Your task to perform on an android device: Add razer blade to the cart on amazon Image 0: 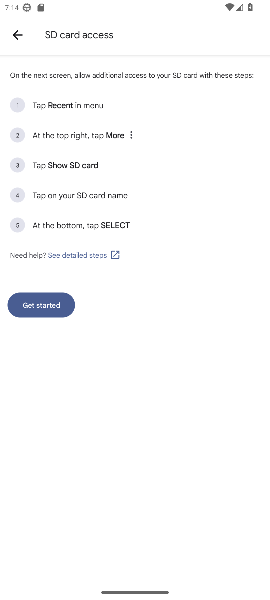
Step 0: press home button
Your task to perform on an android device: Add razer blade to the cart on amazon Image 1: 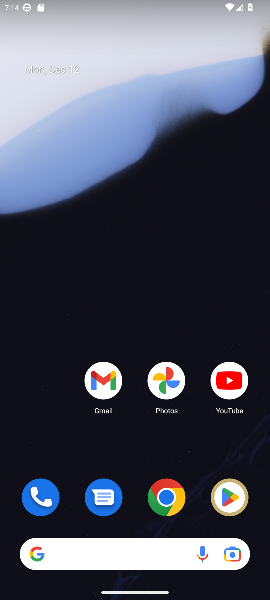
Step 1: drag from (65, 442) to (71, 50)
Your task to perform on an android device: Add razer blade to the cart on amazon Image 2: 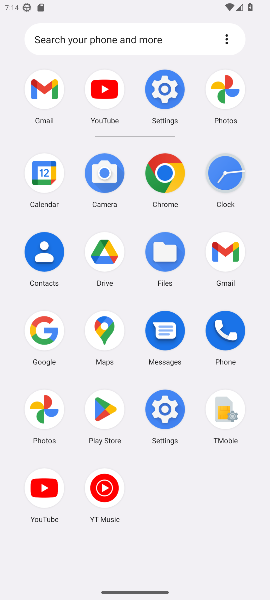
Step 2: click (36, 327)
Your task to perform on an android device: Add razer blade to the cart on amazon Image 3: 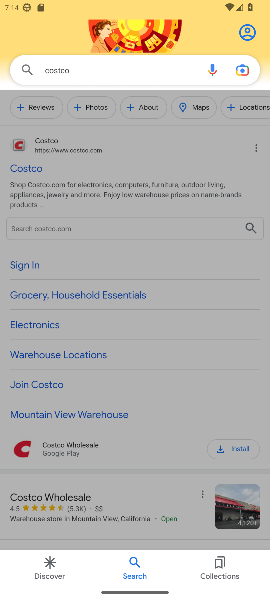
Step 3: click (85, 68)
Your task to perform on an android device: Add razer blade to the cart on amazon Image 4: 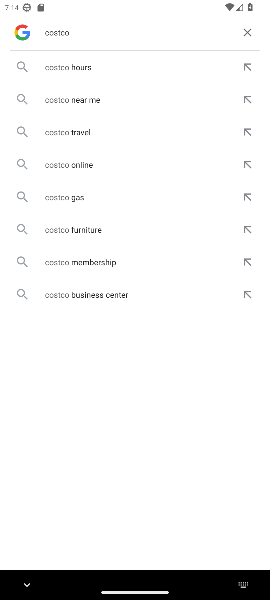
Step 4: click (244, 27)
Your task to perform on an android device: Add razer blade to the cart on amazon Image 5: 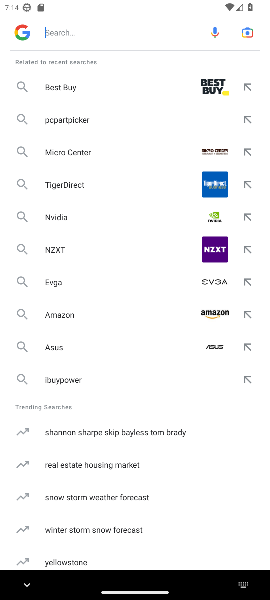
Step 5: type "amazon"
Your task to perform on an android device: Add razer blade to the cart on amazon Image 6: 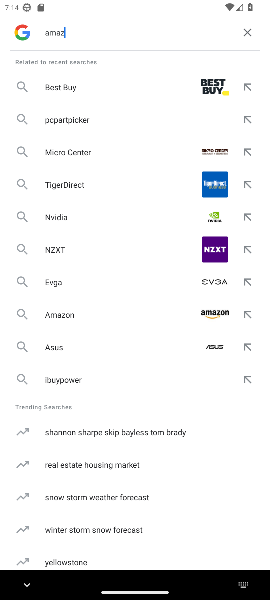
Step 6: press enter
Your task to perform on an android device: Add razer blade to the cart on amazon Image 7: 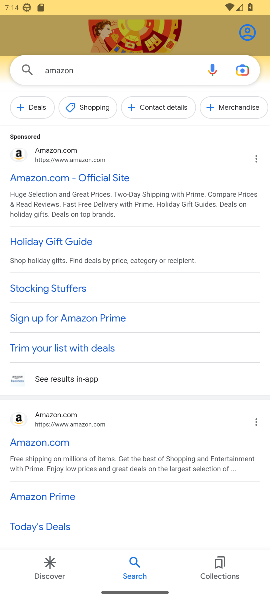
Step 7: click (40, 180)
Your task to perform on an android device: Add razer blade to the cart on amazon Image 8: 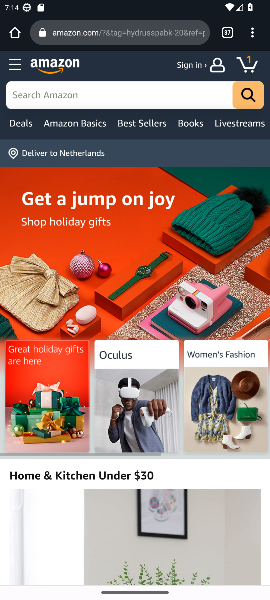
Step 8: click (30, 90)
Your task to perform on an android device: Add razer blade to the cart on amazon Image 9: 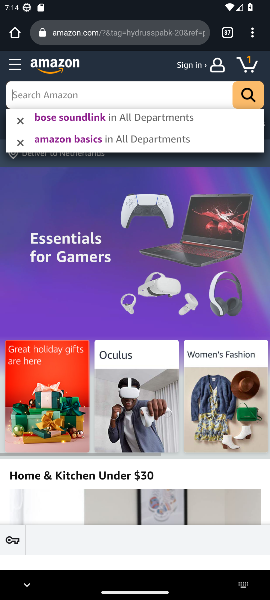
Step 9: type "razer blade"
Your task to perform on an android device: Add razer blade to the cart on amazon Image 10: 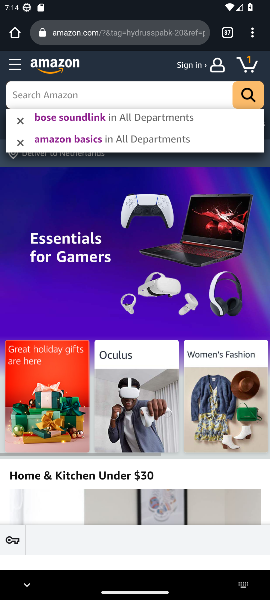
Step 10: press enter
Your task to perform on an android device: Add razer blade to the cart on amazon Image 11: 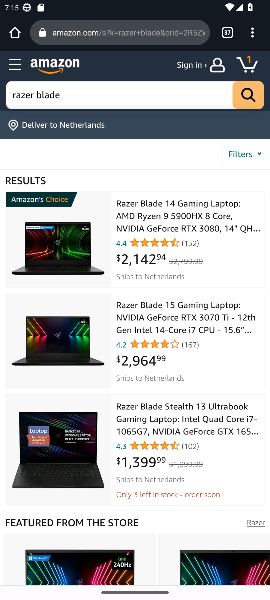
Step 11: click (130, 235)
Your task to perform on an android device: Add razer blade to the cart on amazon Image 12: 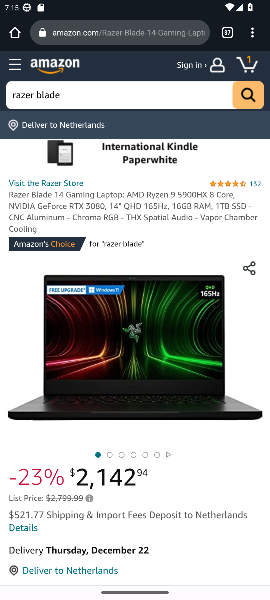
Step 12: drag from (146, 497) to (138, 215)
Your task to perform on an android device: Add razer blade to the cart on amazon Image 13: 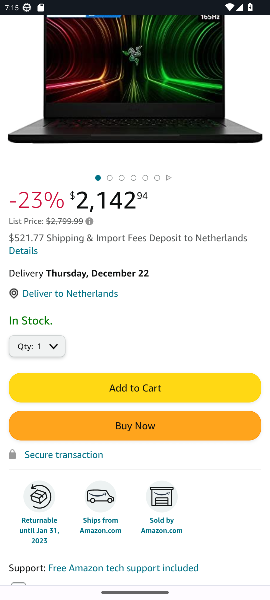
Step 13: click (112, 384)
Your task to perform on an android device: Add razer blade to the cart on amazon Image 14: 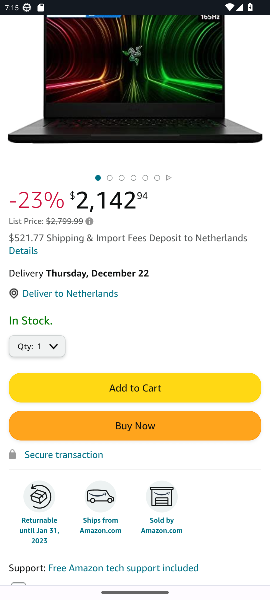
Step 14: click (128, 386)
Your task to perform on an android device: Add razer blade to the cart on amazon Image 15: 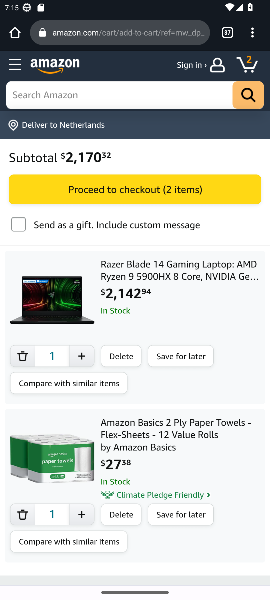
Step 15: task complete